Your task to perform on an android device: open app "Google Play services" (install if not already installed) Image 0: 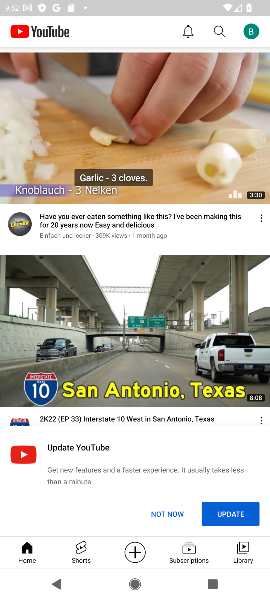
Step 0: press home button
Your task to perform on an android device: open app "Google Play services" (install if not already installed) Image 1: 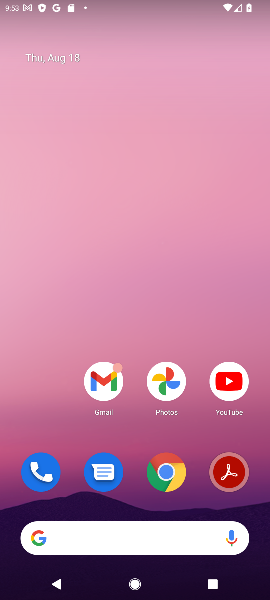
Step 1: drag from (164, 349) to (161, 103)
Your task to perform on an android device: open app "Google Play services" (install if not already installed) Image 2: 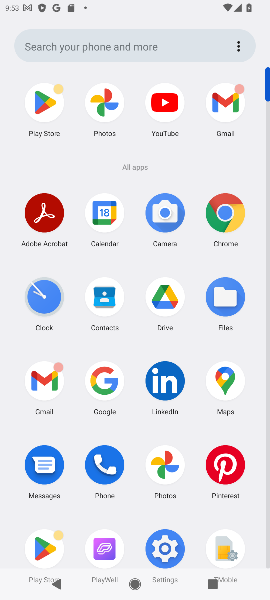
Step 2: click (35, 537)
Your task to perform on an android device: open app "Google Play services" (install if not already installed) Image 3: 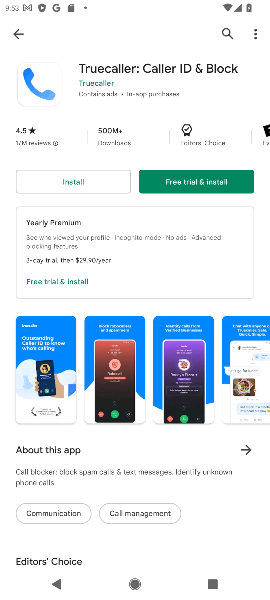
Step 3: click (224, 30)
Your task to perform on an android device: open app "Google Play services" (install if not already installed) Image 4: 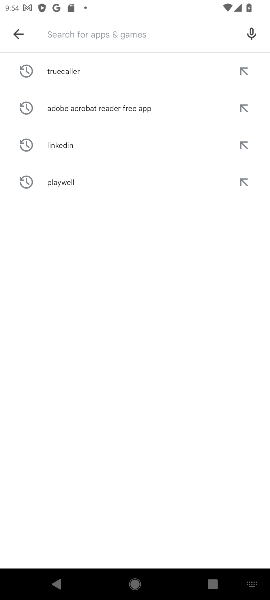
Step 4: type "google play services"
Your task to perform on an android device: open app "Google Play services" (install if not already installed) Image 5: 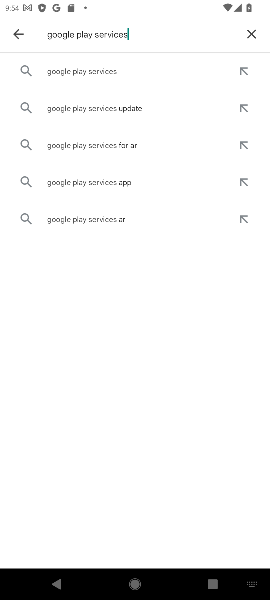
Step 5: click (117, 72)
Your task to perform on an android device: open app "Google Play services" (install if not already installed) Image 6: 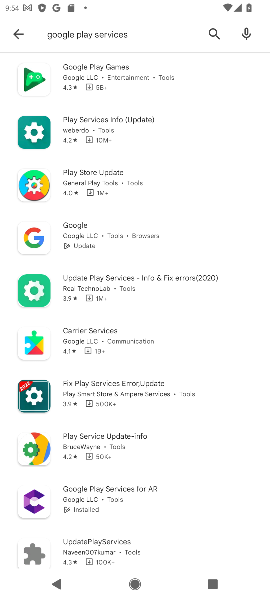
Step 6: task complete